Your task to perform on an android device: read, delete, or share a saved page in the chrome app Image 0: 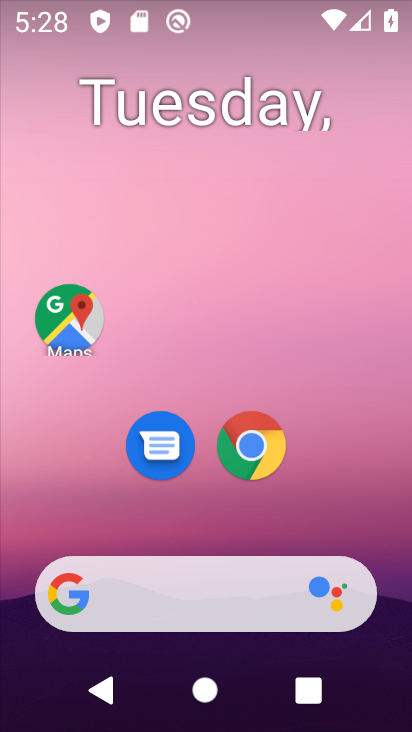
Step 0: drag from (271, 523) to (331, 89)
Your task to perform on an android device: read, delete, or share a saved page in the chrome app Image 1: 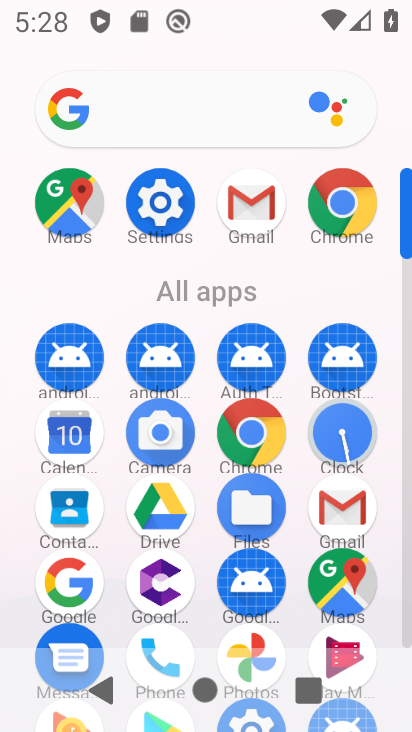
Step 1: click (256, 432)
Your task to perform on an android device: read, delete, or share a saved page in the chrome app Image 2: 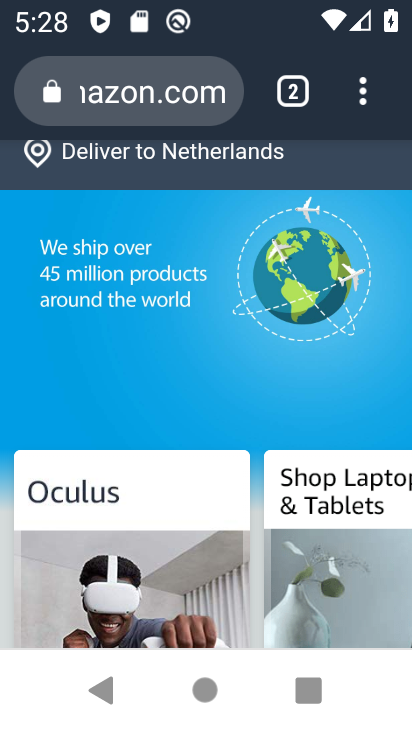
Step 2: drag from (321, 231) to (277, 460)
Your task to perform on an android device: read, delete, or share a saved page in the chrome app Image 3: 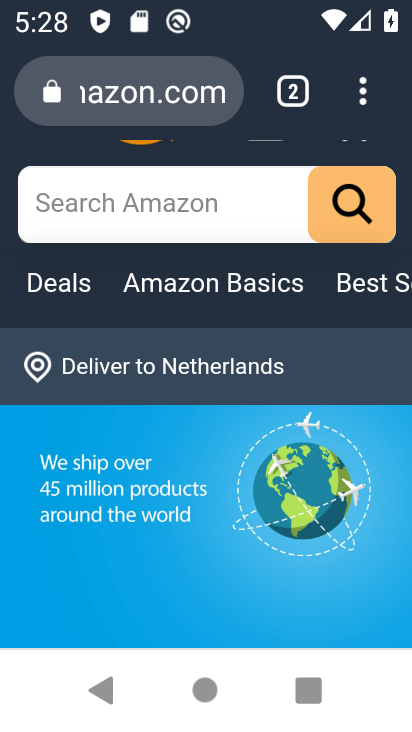
Step 3: drag from (206, 501) to (291, 224)
Your task to perform on an android device: read, delete, or share a saved page in the chrome app Image 4: 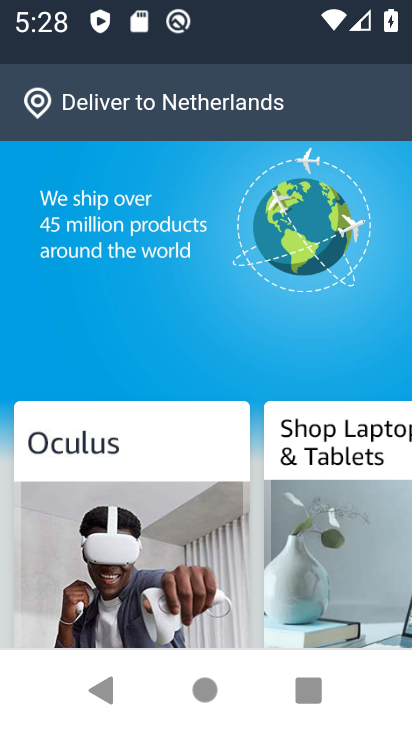
Step 4: drag from (270, 548) to (340, 344)
Your task to perform on an android device: read, delete, or share a saved page in the chrome app Image 5: 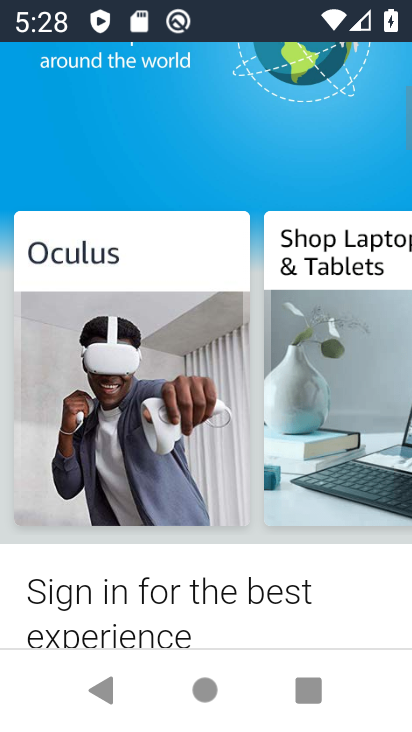
Step 5: drag from (347, 324) to (294, 684)
Your task to perform on an android device: read, delete, or share a saved page in the chrome app Image 6: 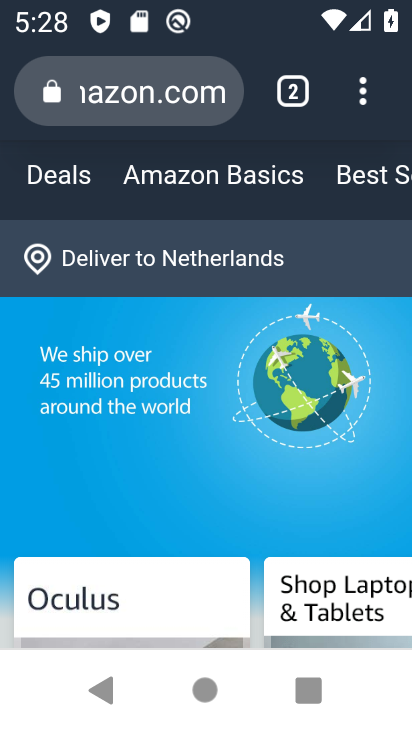
Step 6: drag from (360, 96) to (139, 109)
Your task to perform on an android device: read, delete, or share a saved page in the chrome app Image 7: 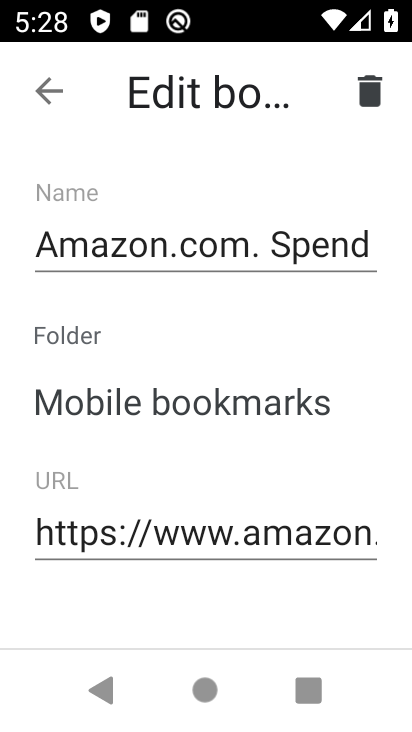
Step 7: click (373, 78)
Your task to perform on an android device: read, delete, or share a saved page in the chrome app Image 8: 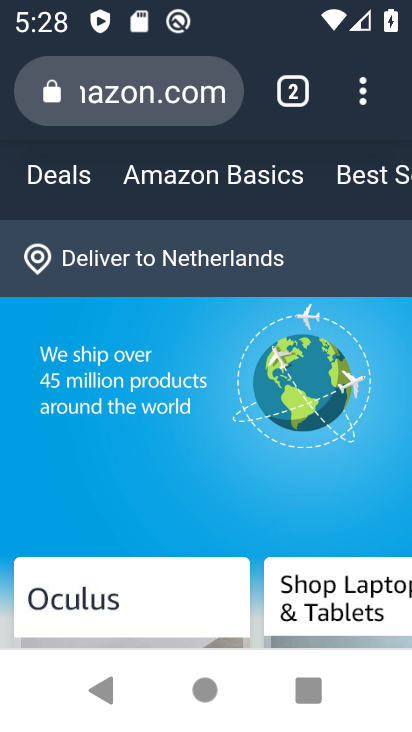
Step 8: task complete